Your task to perform on an android device: turn on sleep mode Image 0: 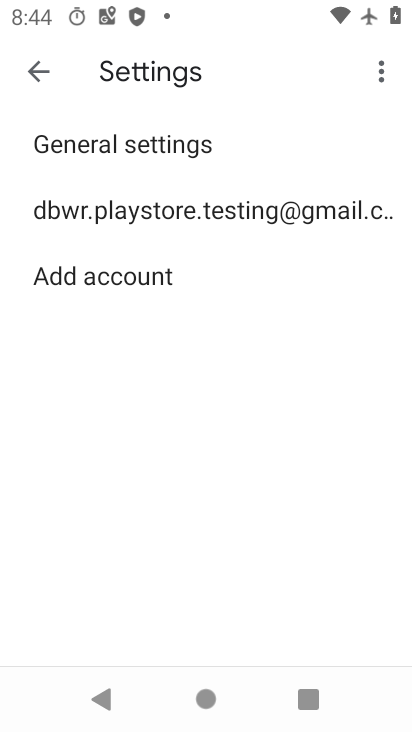
Step 0: press home button
Your task to perform on an android device: turn on sleep mode Image 1: 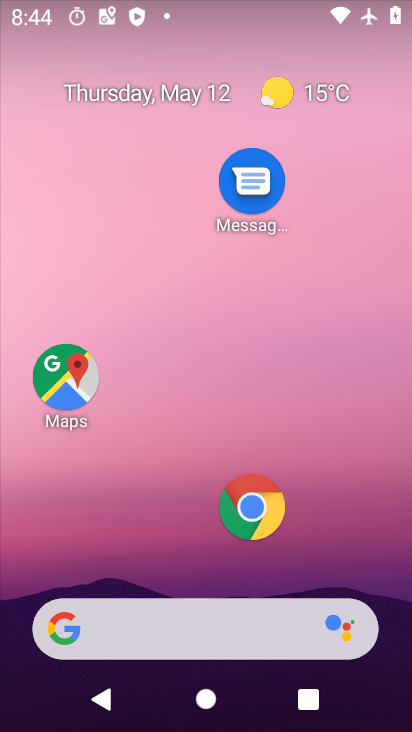
Step 1: drag from (304, 562) to (338, 34)
Your task to perform on an android device: turn on sleep mode Image 2: 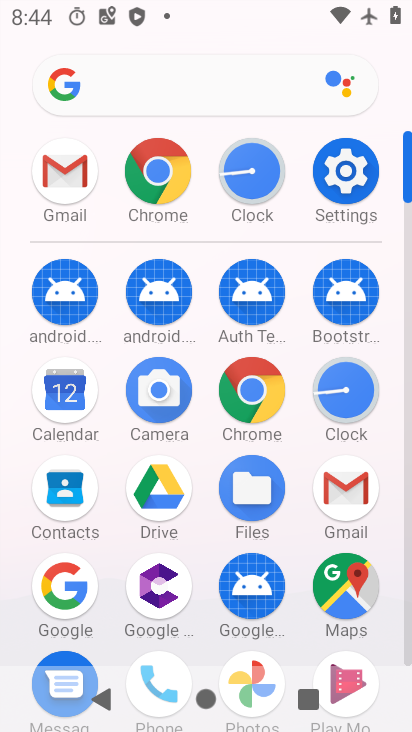
Step 2: click (357, 174)
Your task to perform on an android device: turn on sleep mode Image 3: 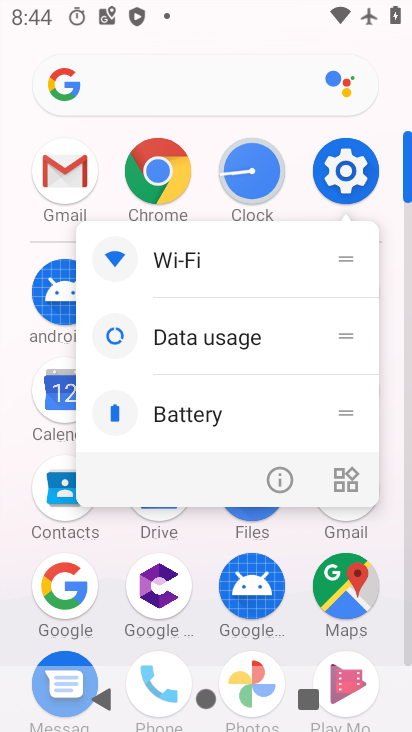
Step 3: click (348, 174)
Your task to perform on an android device: turn on sleep mode Image 4: 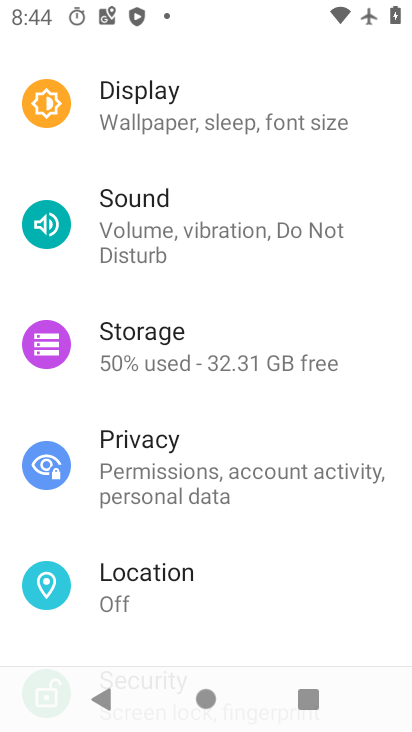
Step 4: drag from (196, 456) to (288, 150)
Your task to perform on an android device: turn on sleep mode Image 5: 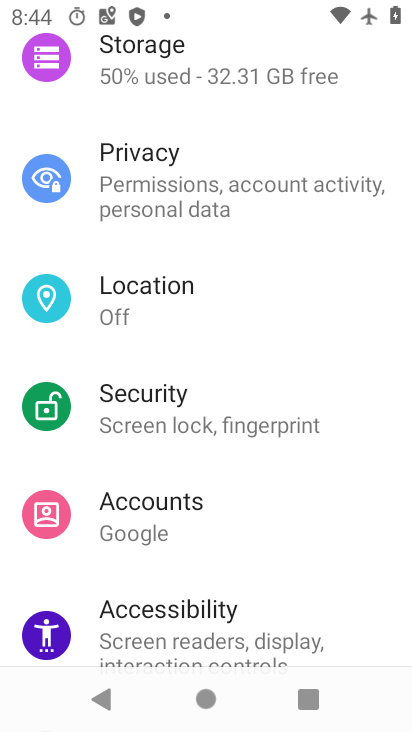
Step 5: drag from (195, 528) to (208, 236)
Your task to perform on an android device: turn on sleep mode Image 6: 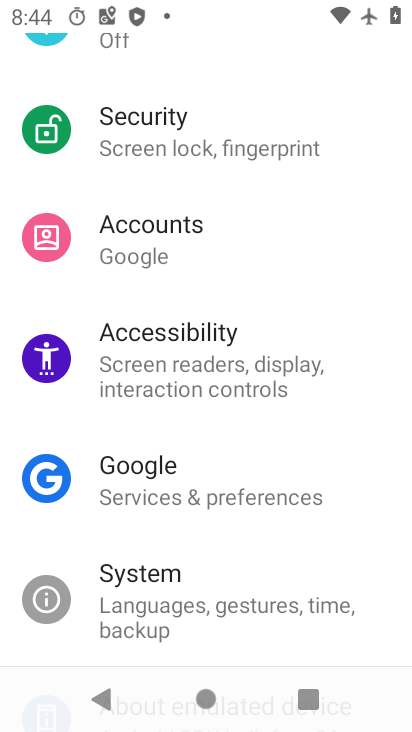
Step 6: drag from (280, 631) to (289, 233)
Your task to perform on an android device: turn on sleep mode Image 7: 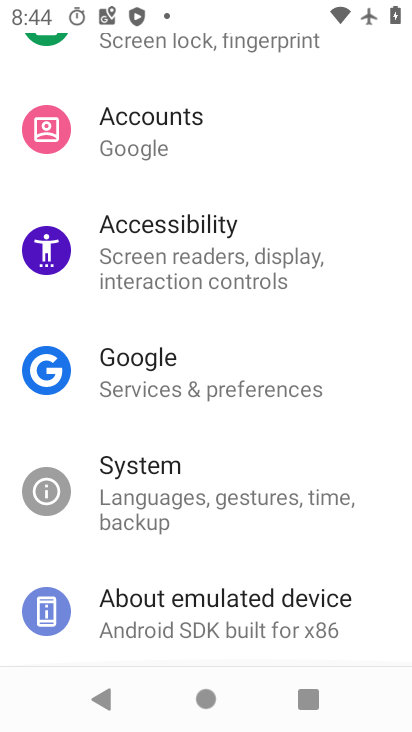
Step 7: drag from (273, 275) to (235, 536)
Your task to perform on an android device: turn on sleep mode Image 8: 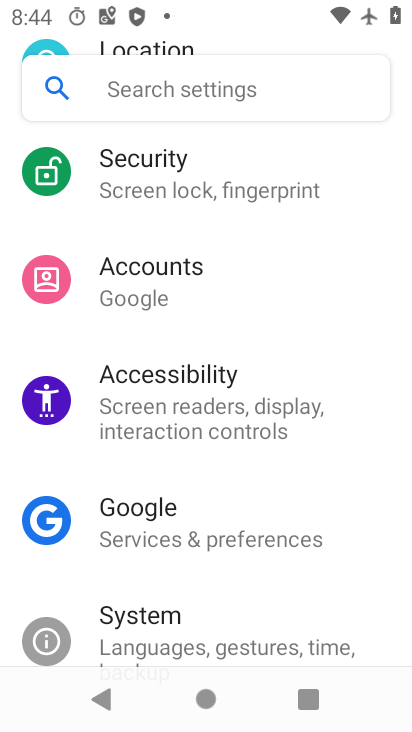
Step 8: drag from (255, 172) to (293, 476)
Your task to perform on an android device: turn on sleep mode Image 9: 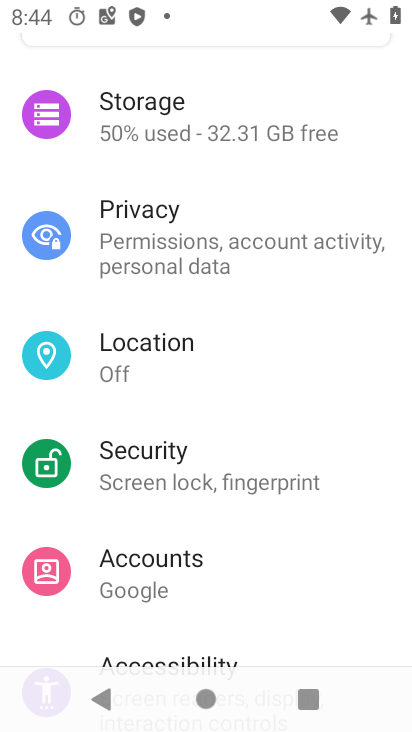
Step 9: drag from (211, 178) to (184, 472)
Your task to perform on an android device: turn on sleep mode Image 10: 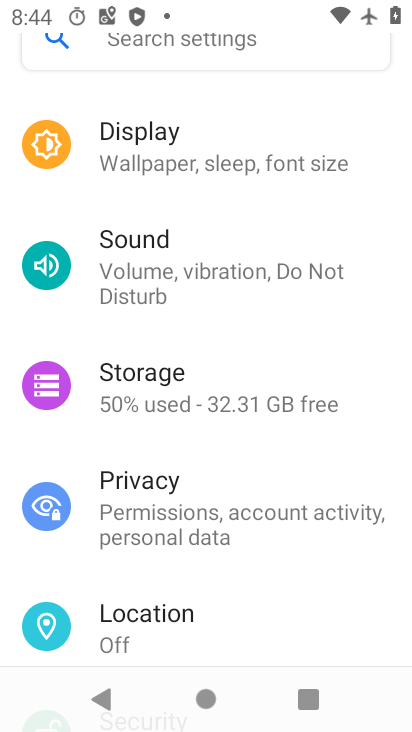
Step 10: click (300, 172)
Your task to perform on an android device: turn on sleep mode Image 11: 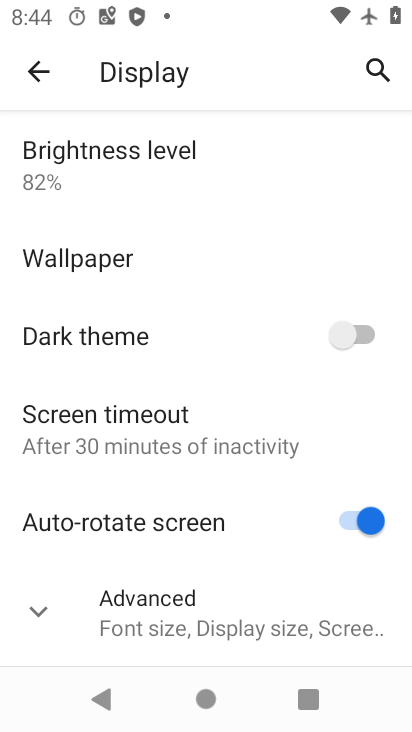
Step 11: click (147, 597)
Your task to perform on an android device: turn on sleep mode Image 12: 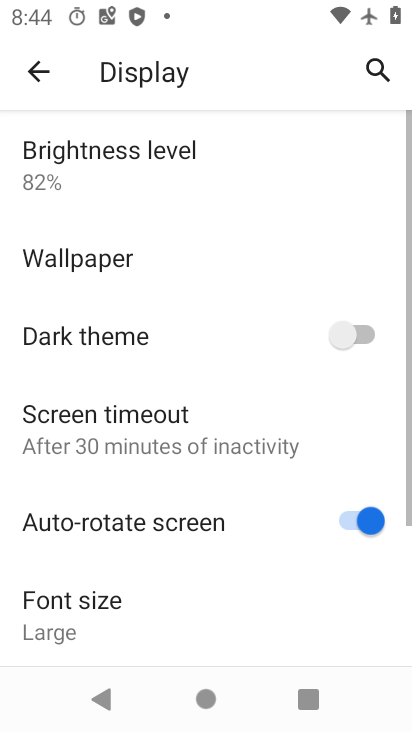
Step 12: task complete